Your task to perform on an android device: Open Yahoo.com Image 0: 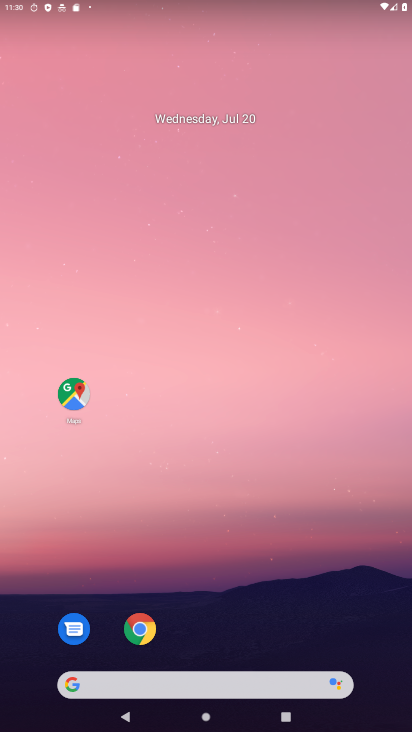
Step 0: drag from (281, 689) to (327, 64)
Your task to perform on an android device: Open Yahoo.com Image 1: 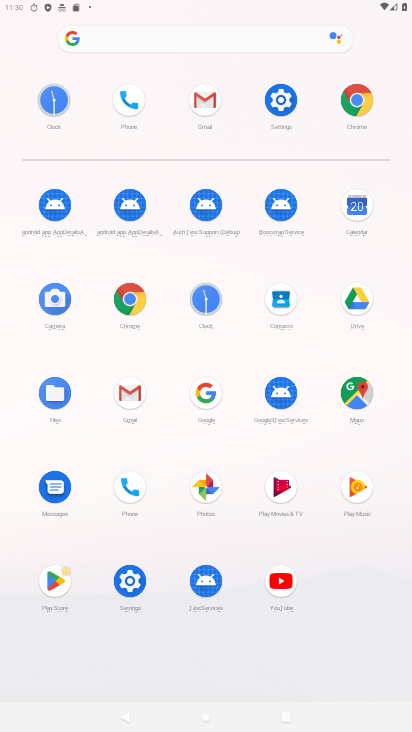
Step 1: click (136, 298)
Your task to perform on an android device: Open Yahoo.com Image 2: 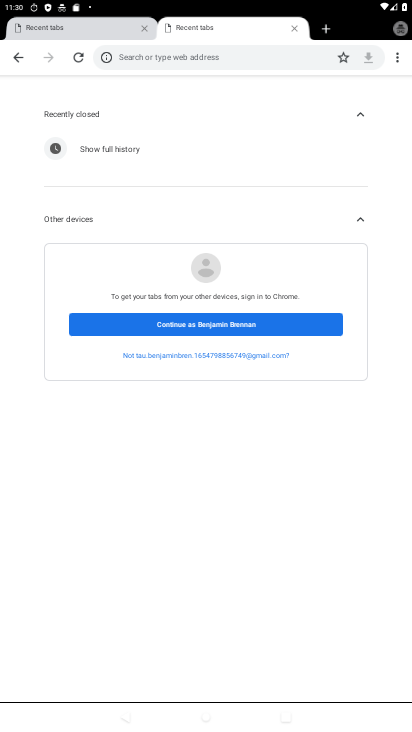
Step 2: click (217, 51)
Your task to perform on an android device: Open Yahoo.com Image 3: 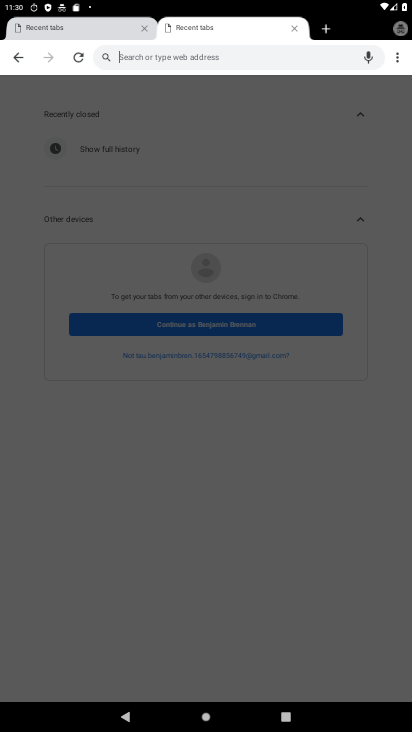
Step 3: type "yahoo.com"
Your task to perform on an android device: Open Yahoo.com Image 4: 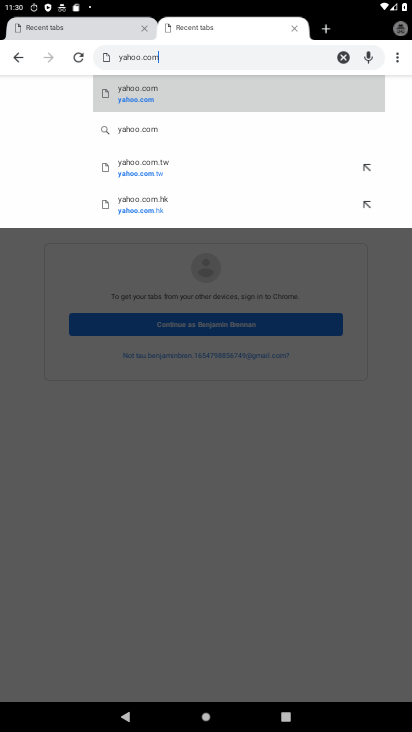
Step 4: click (189, 95)
Your task to perform on an android device: Open Yahoo.com Image 5: 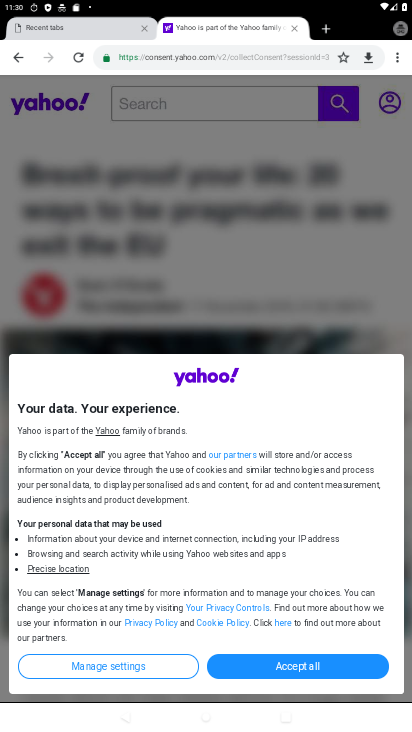
Step 5: task complete